Your task to perform on an android device: Show me recent news Image 0: 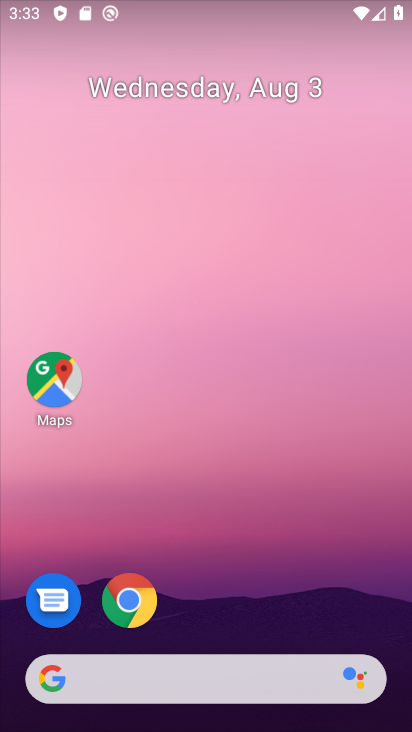
Step 0: drag from (365, 629) to (327, 135)
Your task to perform on an android device: Show me recent news Image 1: 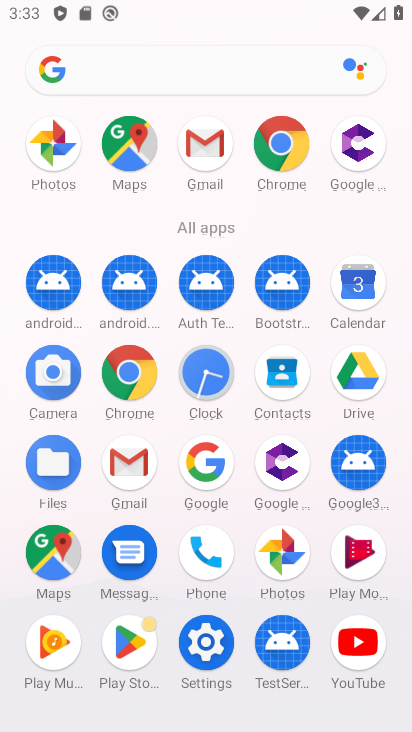
Step 1: task complete